Your task to perform on an android device: check storage Image 0: 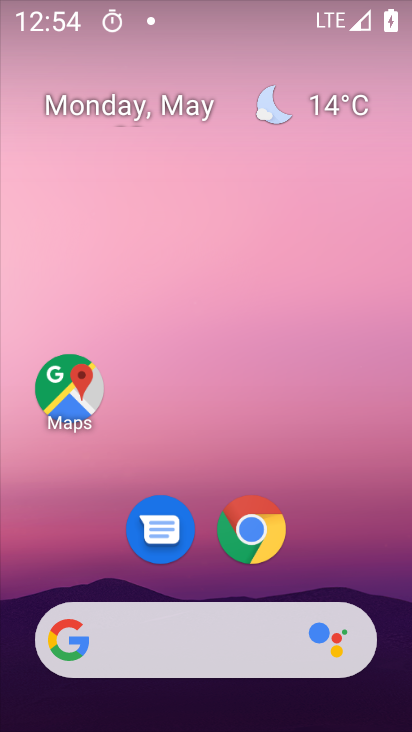
Step 0: drag from (369, 587) to (361, 167)
Your task to perform on an android device: check storage Image 1: 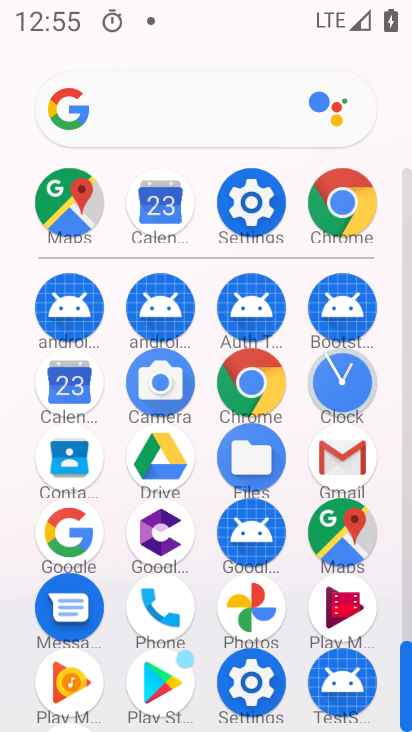
Step 1: click (253, 211)
Your task to perform on an android device: check storage Image 2: 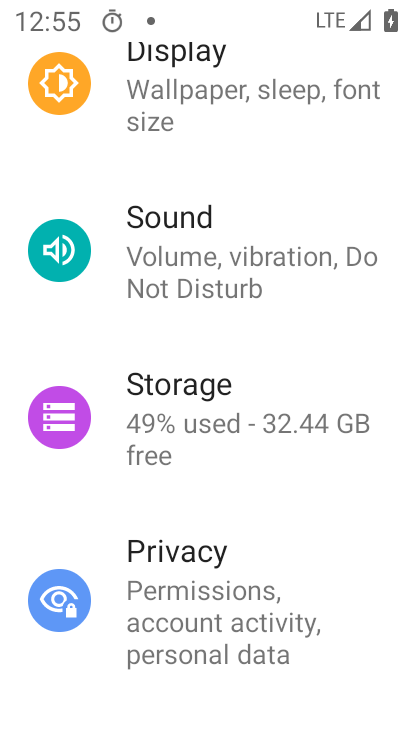
Step 2: drag from (354, 586) to (370, 441)
Your task to perform on an android device: check storage Image 3: 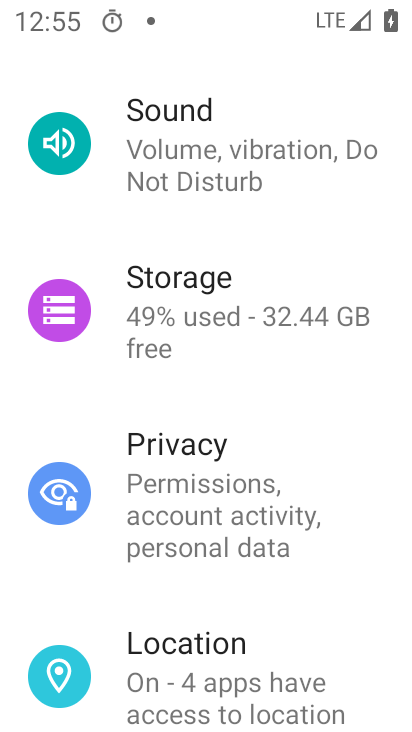
Step 3: drag from (360, 611) to (353, 516)
Your task to perform on an android device: check storage Image 4: 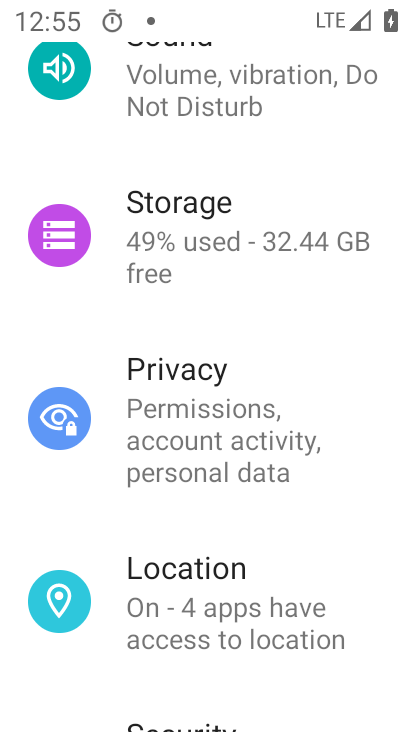
Step 4: drag from (359, 665) to (357, 544)
Your task to perform on an android device: check storage Image 5: 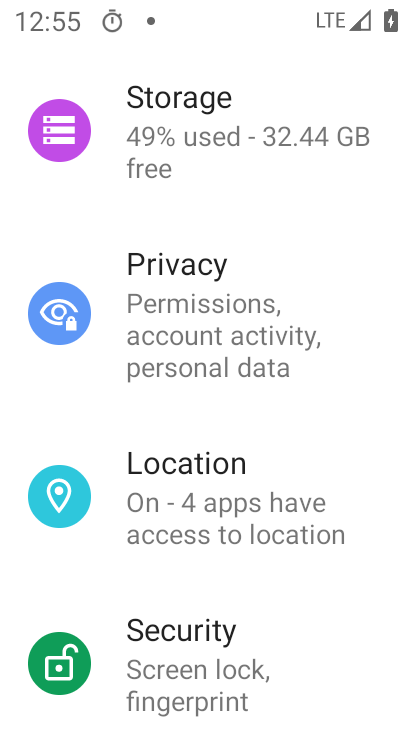
Step 5: drag from (358, 652) to (368, 499)
Your task to perform on an android device: check storage Image 6: 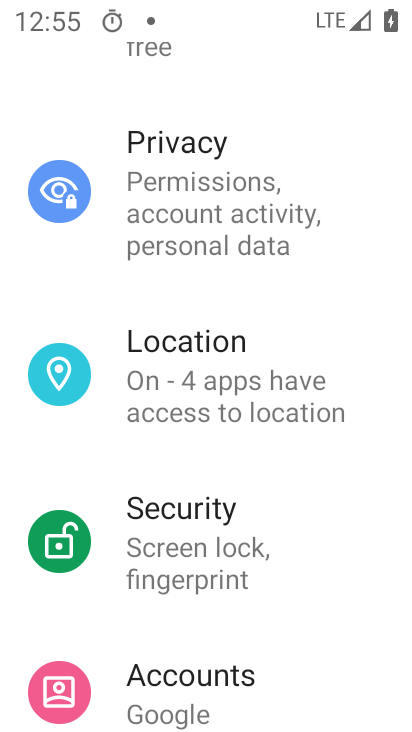
Step 6: drag from (344, 583) to (363, 475)
Your task to perform on an android device: check storage Image 7: 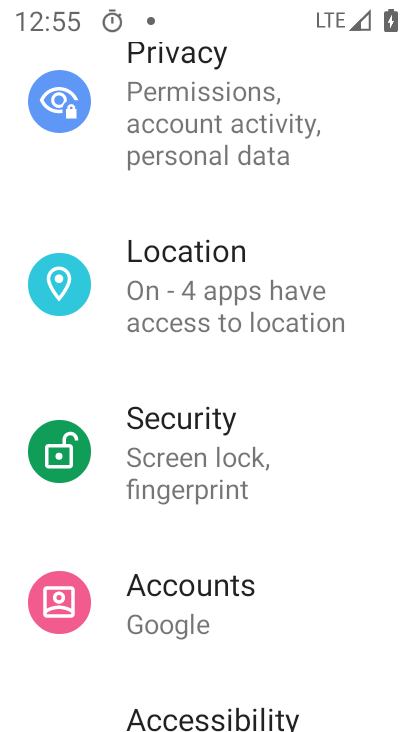
Step 7: drag from (388, 630) to (387, 485)
Your task to perform on an android device: check storage Image 8: 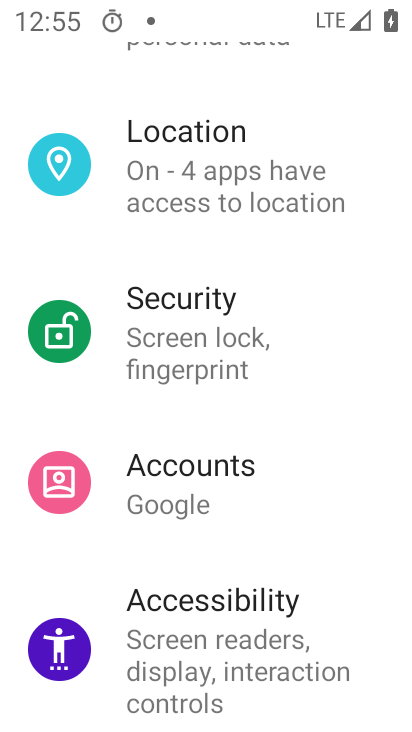
Step 8: drag from (345, 593) to (353, 436)
Your task to perform on an android device: check storage Image 9: 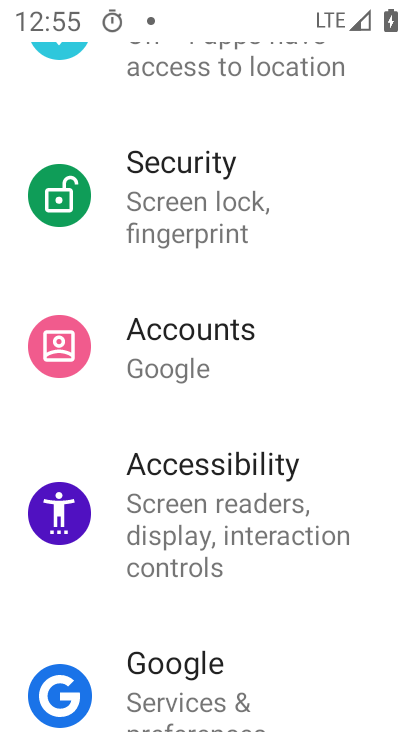
Step 9: drag from (365, 625) to (368, 452)
Your task to perform on an android device: check storage Image 10: 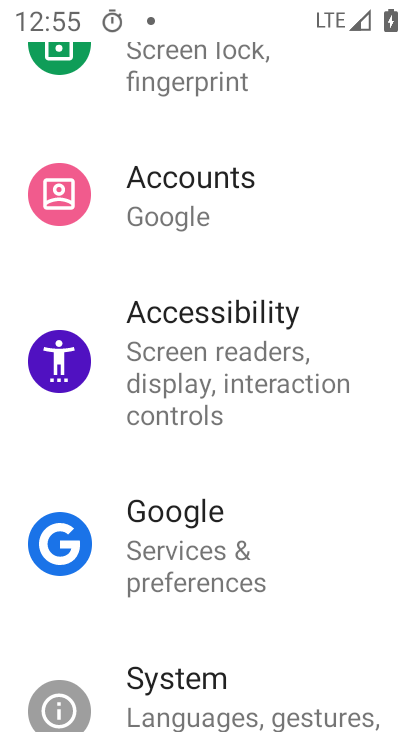
Step 10: drag from (349, 613) to (360, 452)
Your task to perform on an android device: check storage Image 11: 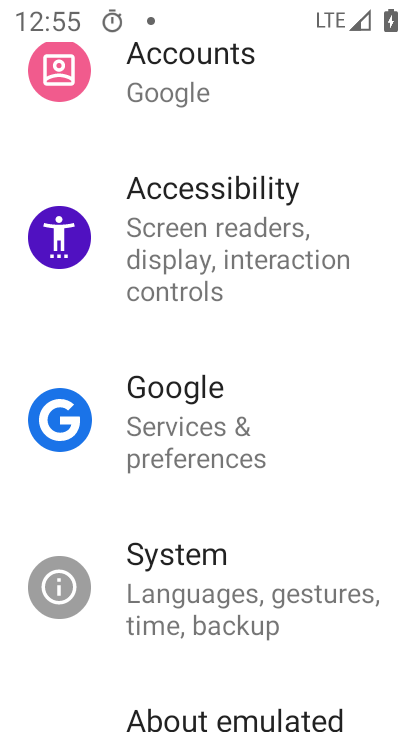
Step 11: drag from (358, 649) to (347, 530)
Your task to perform on an android device: check storage Image 12: 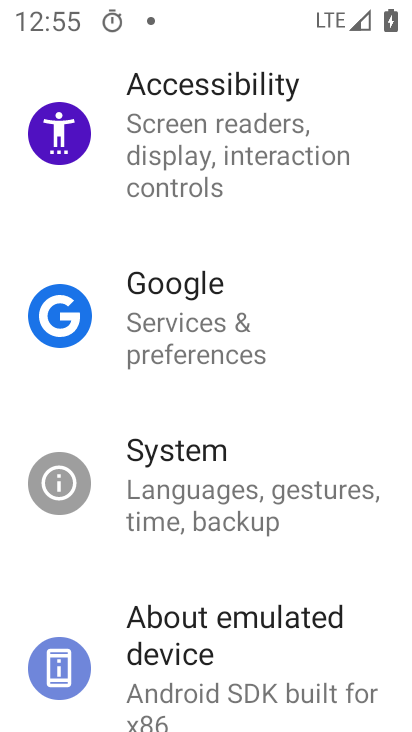
Step 12: drag from (351, 579) to (362, 409)
Your task to perform on an android device: check storage Image 13: 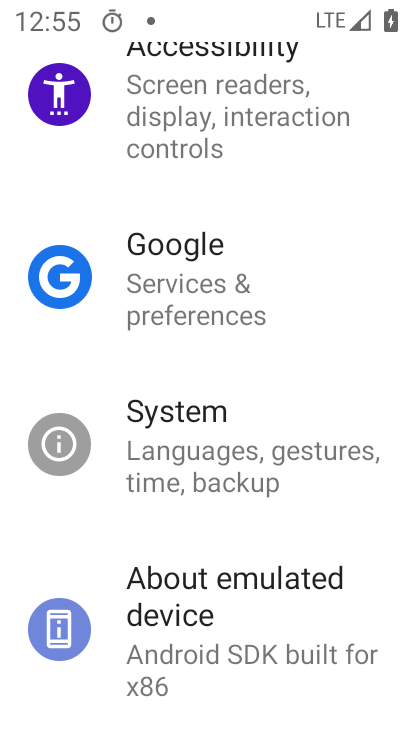
Step 13: drag from (358, 578) to (347, 368)
Your task to perform on an android device: check storage Image 14: 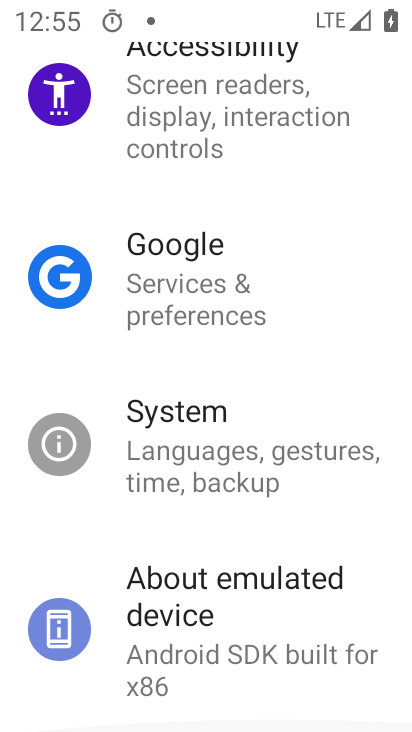
Step 14: drag from (345, 263) to (345, 425)
Your task to perform on an android device: check storage Image 15: 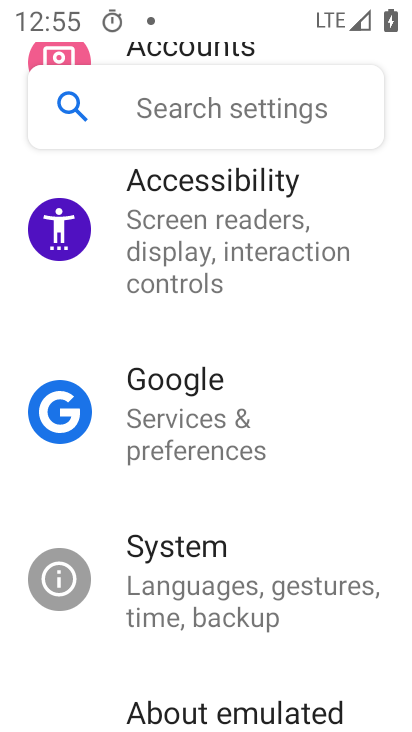
Step 15: drag from (356, 337) to (346, 451)
Your task to perform on an android device: check storage Image 16: 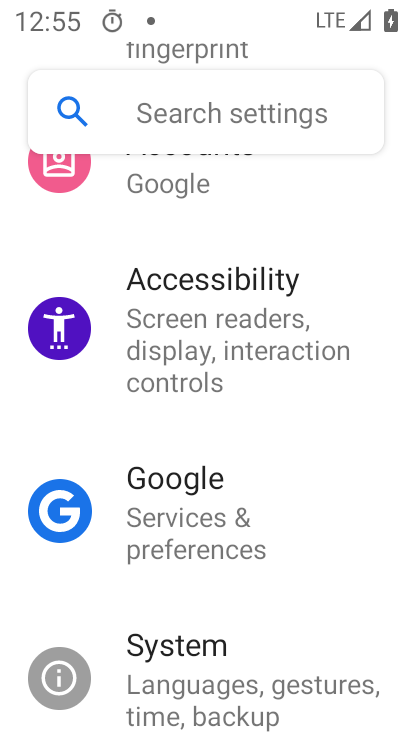
Step 16: drag from (337, 240) to (333, 414)
Your task to perform on an android device: check storage Image 17: 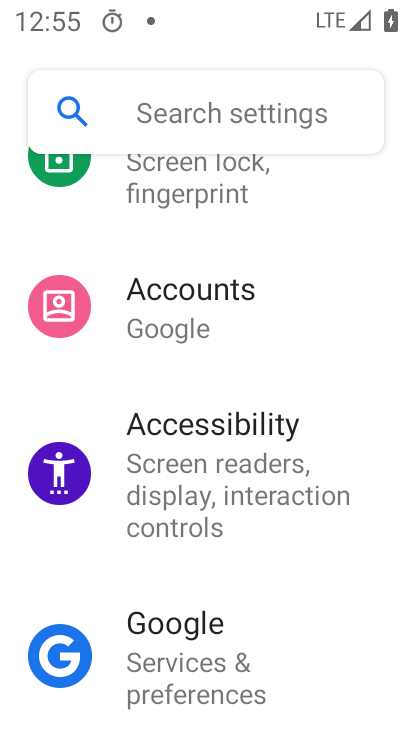
Step 17: drag from (349, 237) to (353, 412)
Your task to perform on an android device: check storage Image 18: 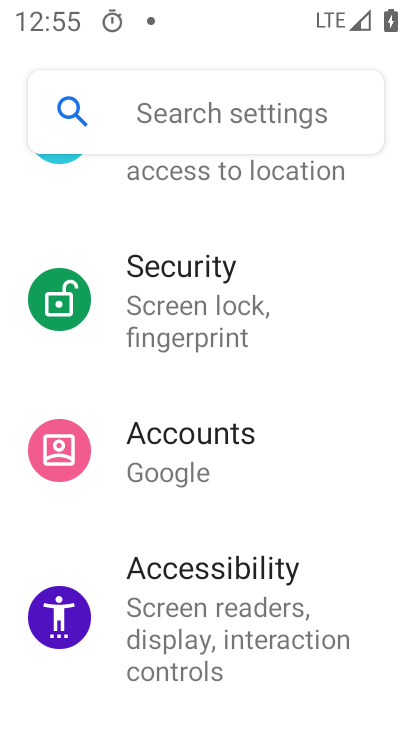
Step 18: drag from (346, 226) to (326, 418)
Your task to perform on an android device: check storage Image 19: 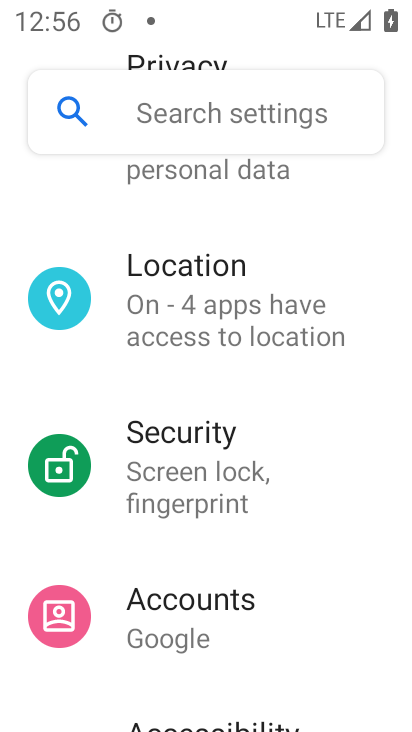
Step 19: drag from (353, 205) to (357, 375)
Your task to perform on an android device: check storage Image 20: 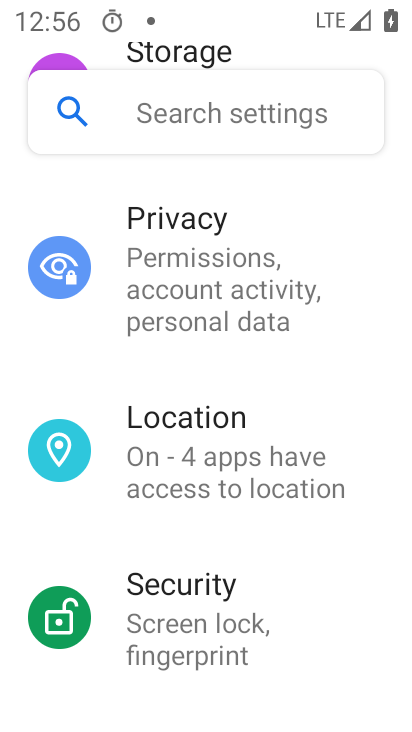
Step 20: drag from (347, 187) to (348, 348)
Your task to perform on an android device: check storage Image 21: 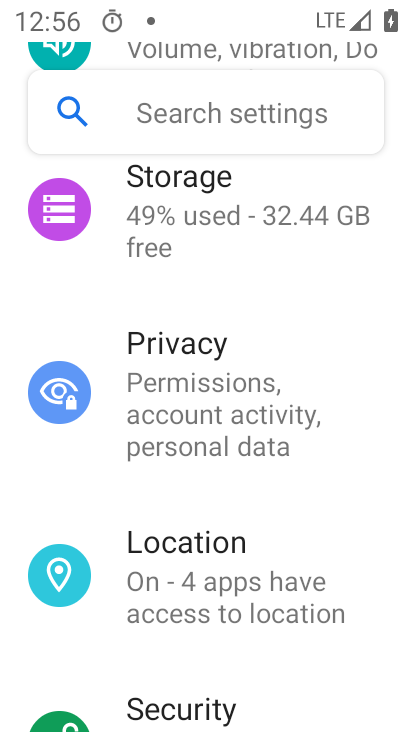
Step 21: click (295, 218)
Your task to perform on an android device: check storage Image 22: 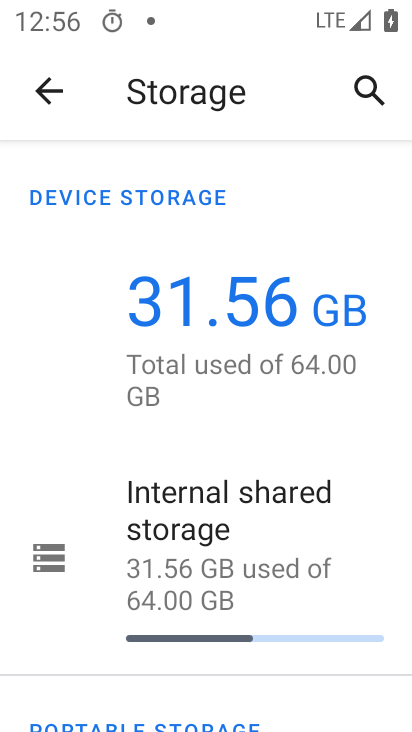
Step 22: task complete